Your task to perform on an android device: Open Google Image 0: 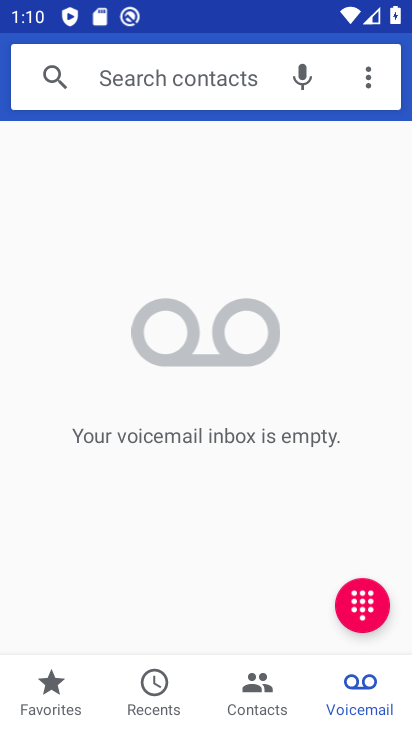
Step 0: task complete